Your task to perform on an android device: move a message to another label in the gmail app Image 0: 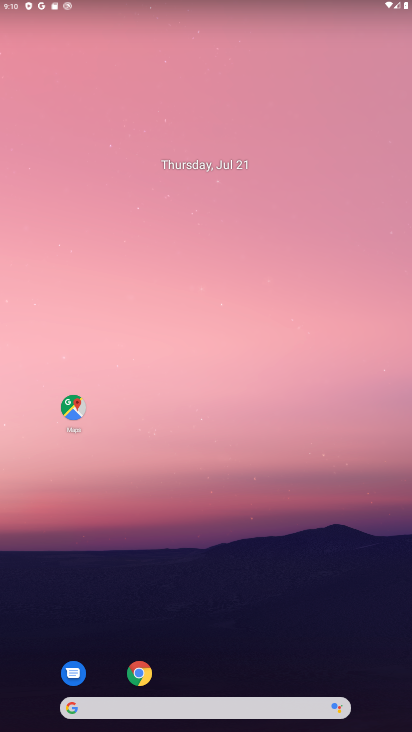
Step 0: press home button
Your task to perform on an android device: move a message to another label in the gmail app Image 1: 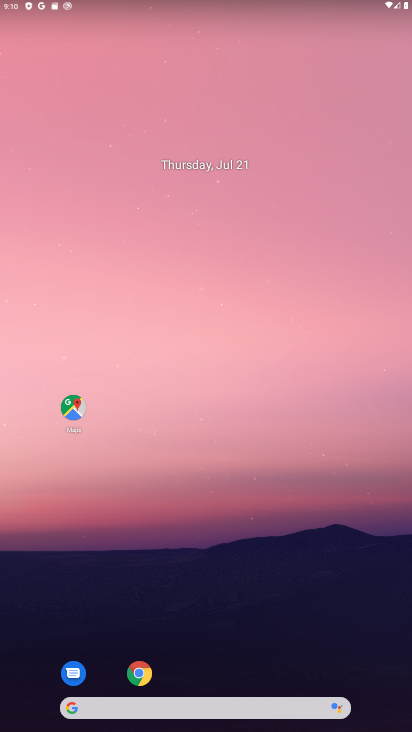
Step 1: drag from (210, 677) to (274, 96)
Your task to perform on an android device: move a message to another label in the gmail app Image 2: 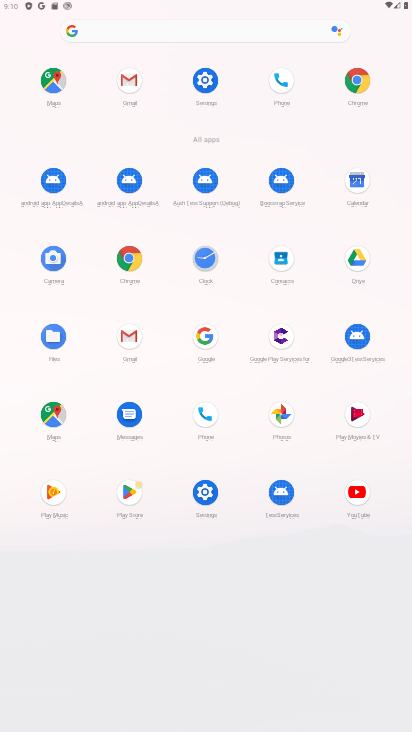
Step 2: click (129, 329)
Your task to perform on an android device: move a message to another label in the gmail app Image 3: 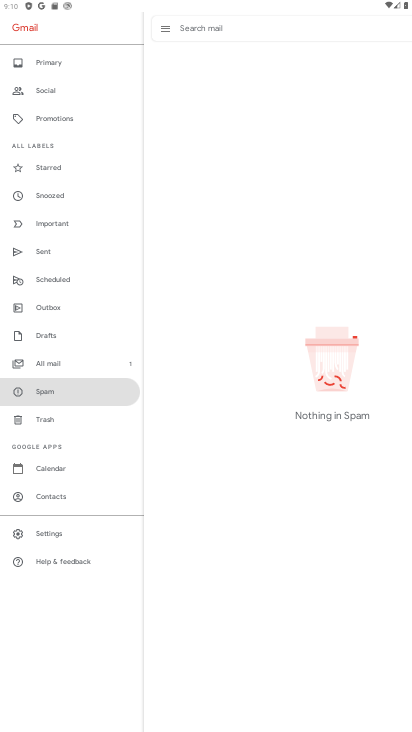
Step 3: click (65, 531)
Your task to perform on an android device: move a message to another label in the gmail app Image 4: 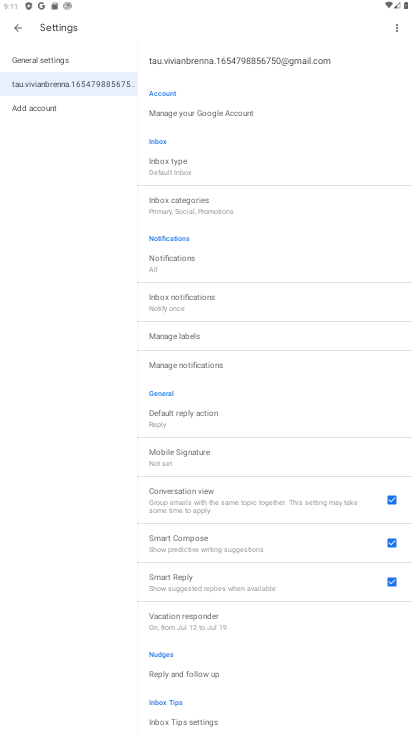
Step 4: click (14, 30)
Your task to perform on an android device: move a message to another label in the gmail app Image 5: 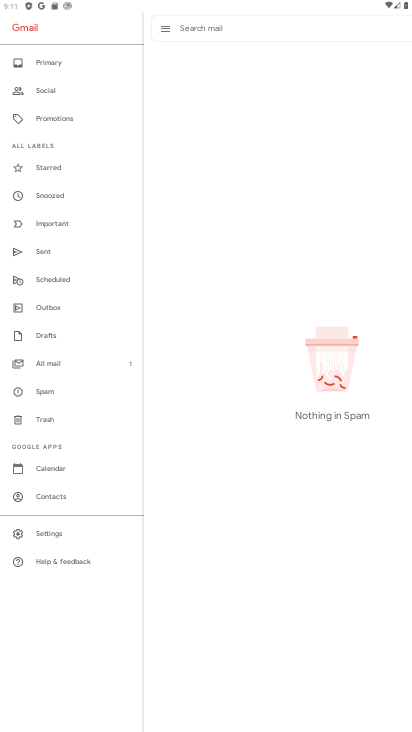
Step 5: click (51, 360)
Your task to perform on an android device: move a message to another label in the gmail app Image 6: 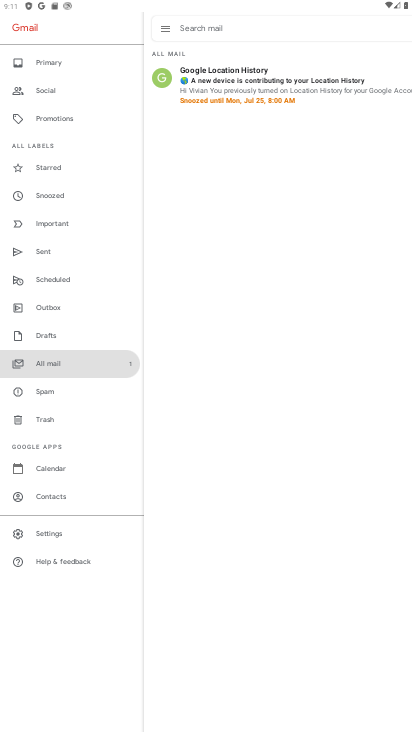
Step 6: task complete